Your task to perform on an android device: delete location history Image 0: 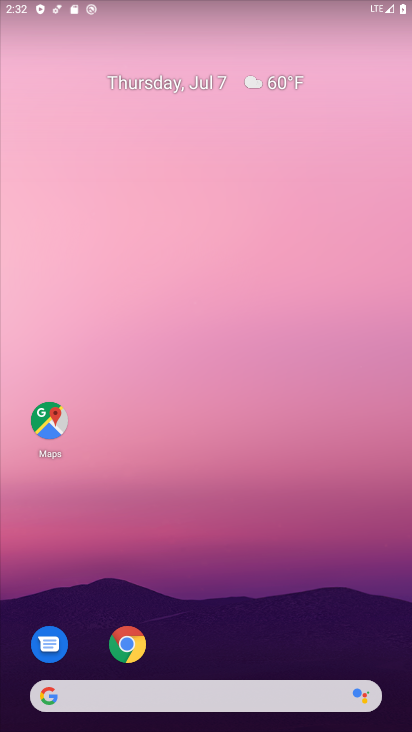
Step 0: drag from (202, 693) to (161, 2)
Your task to perform on an android device: delete location history Image 1: 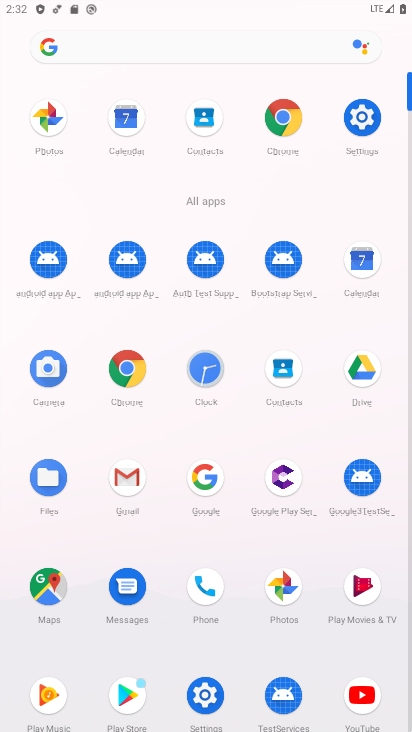
Step 1: click (41, 593)
Your task to perform on an android device: delete location history Image 2: 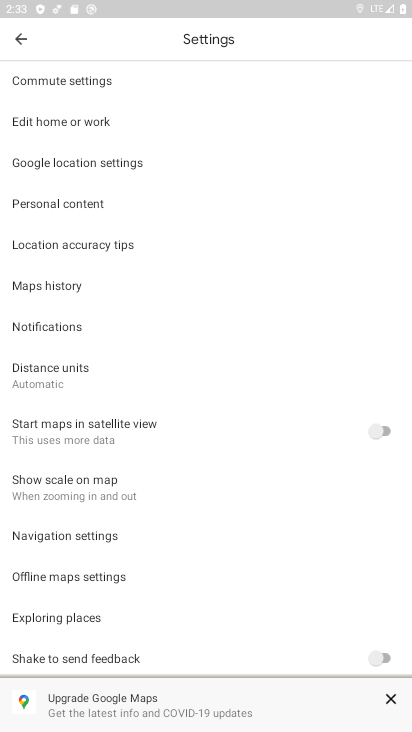
Step 2: click (22, 44)
Your task to perform on an android device: delete location history Image 3: 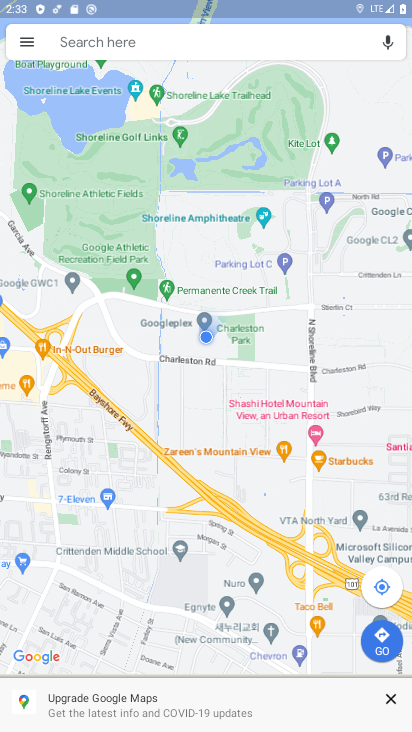
Step 3: click (29, 56)
Your task to perform on an android device: delete location history Image 4: 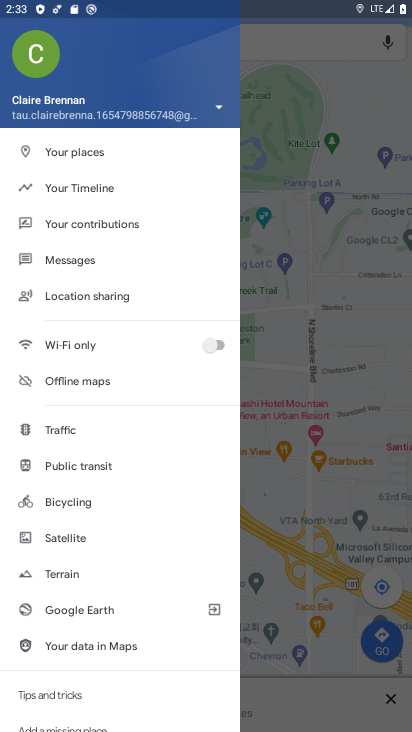
Step 4: click (64, 189)
Your task to perform on an android device: delete location history Image 5: 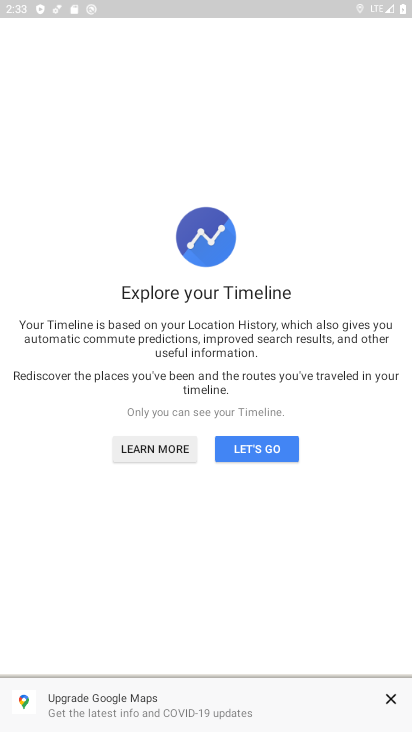
Step 5: click (262, 414)
Your task to perform on an android device: delete location history Image 6: 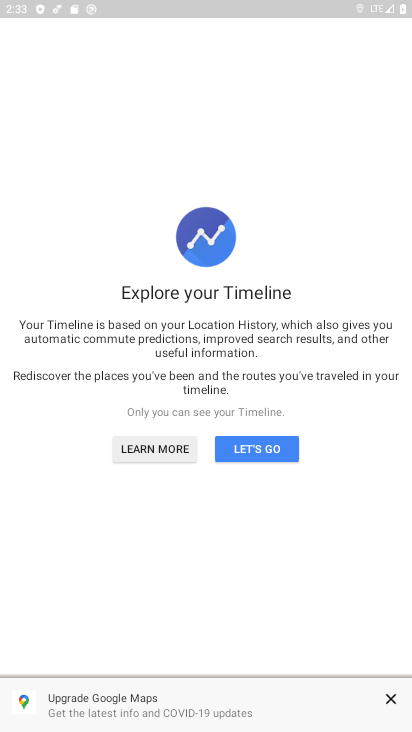
Step 6: click (257, 455)
Your task to perform on an android device: delete location history Image 7: 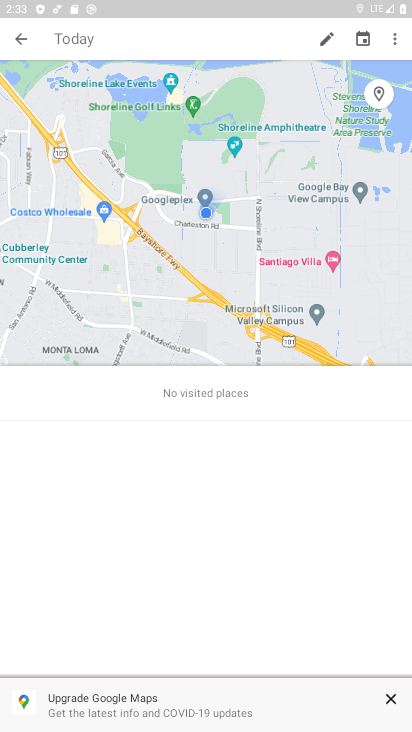
Step 7: click (397, 39)
Your task to perform on an android device: delete location history Image 8: 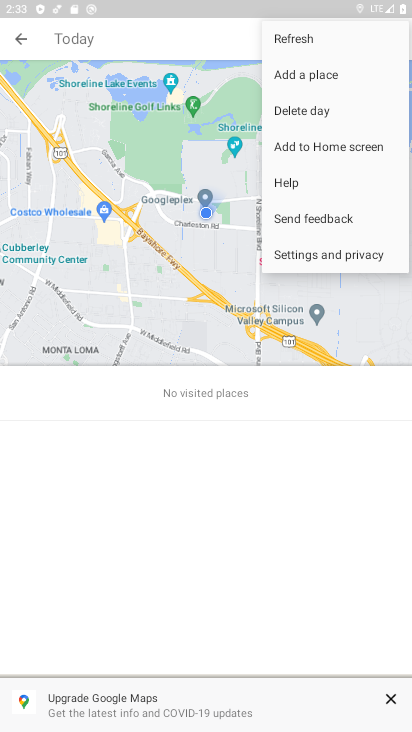
Step 8: click (346, 254)
Your task to perform on an android device: delete location history Image 9: 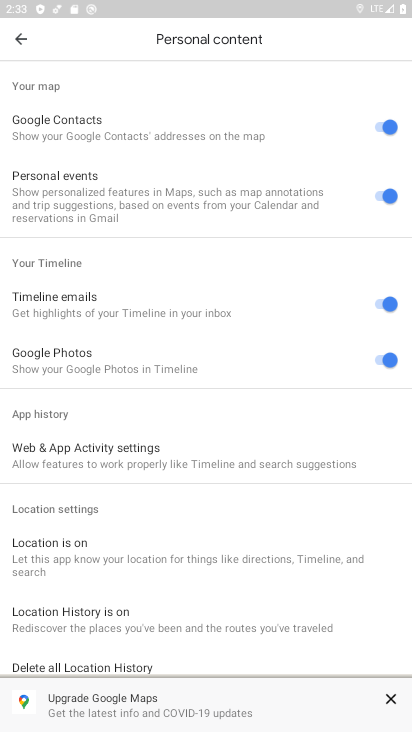
Step 9: drag from (233, 512) to (221, 50)
Your task to perform on an android device: delete location history Image 10: 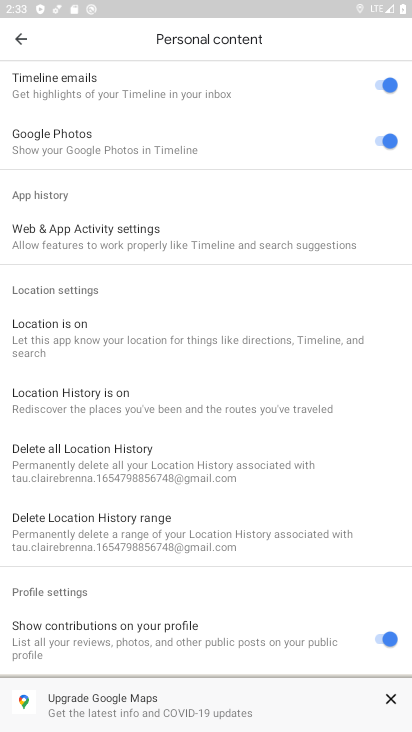
Step 10: click (164, 471)
Your task to perform on an android device: delete location history Image 11: 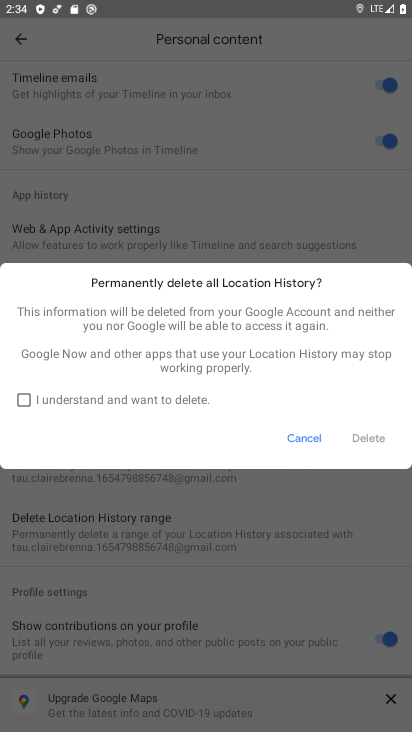
Step 11: click (30, 403)
Your task to perform on an android device: delete location history Image 12: 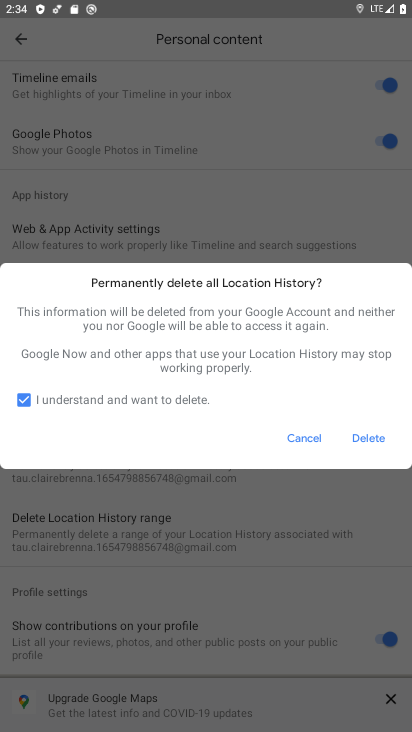
Step 12: click (371, 446)
Your task to perform on an android device: delete location history Image 13: 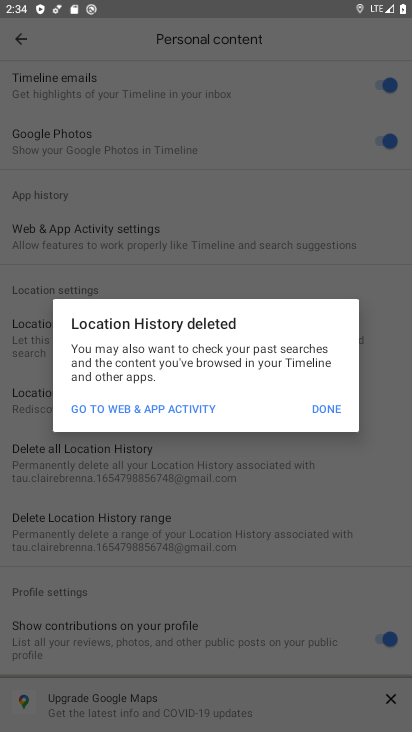
Step 13: click (321, 413)
Your task to perform on an android device: delete location history Image 14: 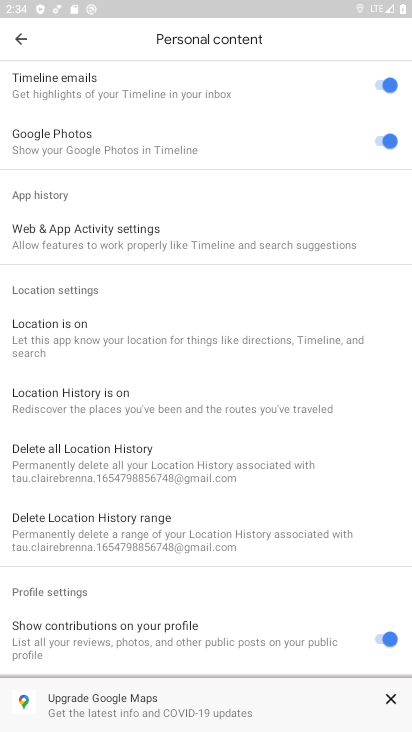
Step 14: task complete